Your task to perform on an android device: Open the Play Movies app and select the watchlist tab. Image 0: 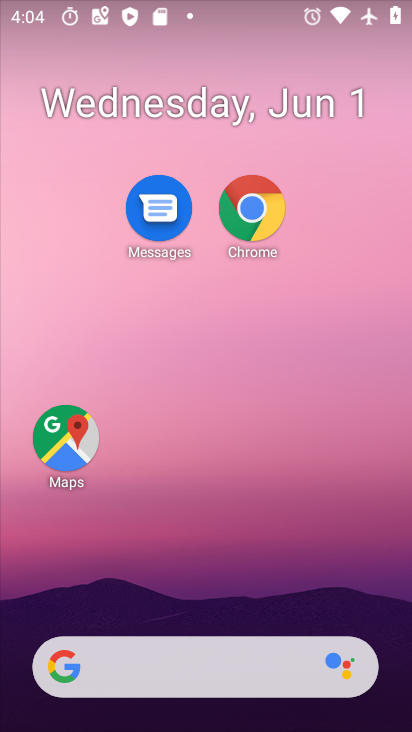
Step 0: drag from (199, 602) to (220, 195)
Your task to perform on an android device: Open the Play Movies app and select the watchlist tab. Image 1: 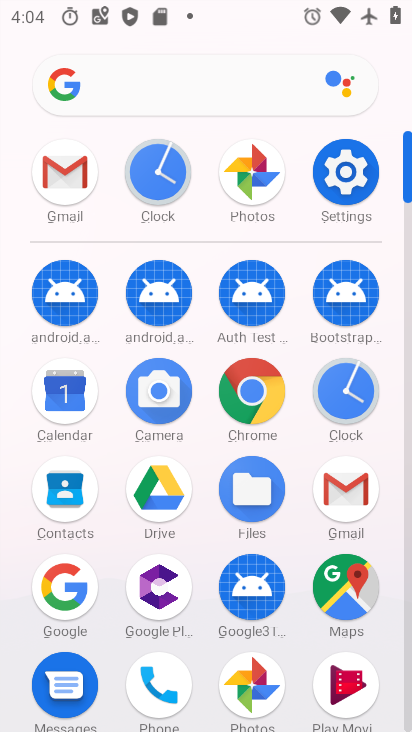
Step 1: click (336, 671)
Your task to perform on an android device: Open the Play Movies app and select the watchlist tab. Image 2: 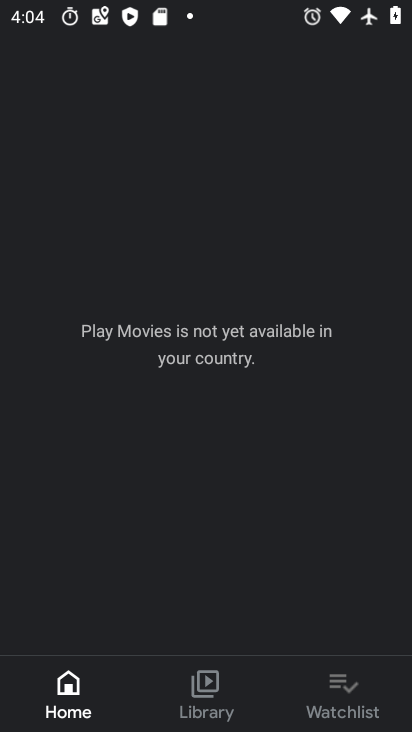
Step 2: click (332, 685)
Your task to perform on an android device: Open the Play Movies app and select the watchlist tab. Image 3: 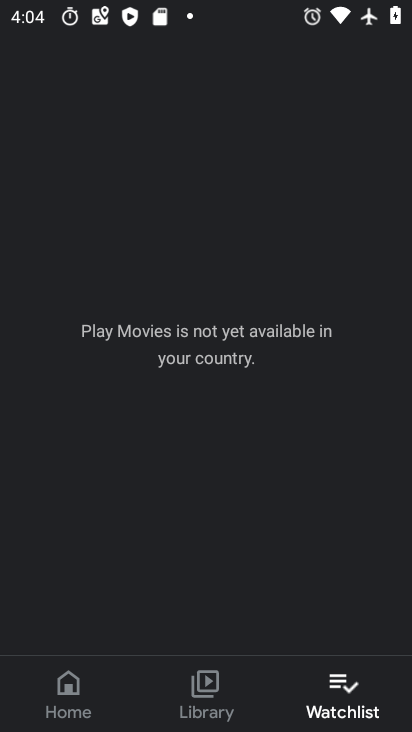
Step 3: task complete